Your task to perform on an android device: View the shopping cart on newegg. Image 0: 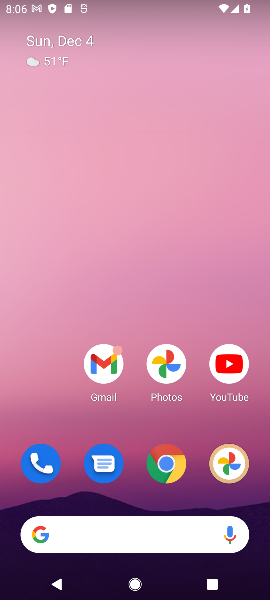
Step 0: click (133, 536)
Your task to perform on an android device: View the shopping cart on newegg. Image 1: 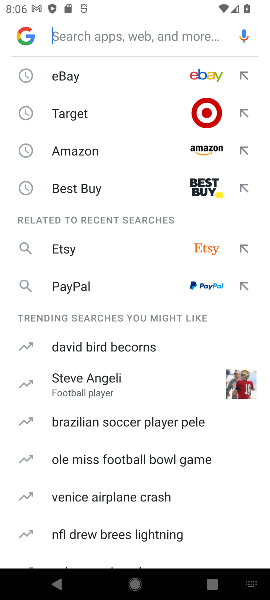
Step 1: type "newegg"
Your task to perform on an android device: View the shopping cart on newegg. Image 2: 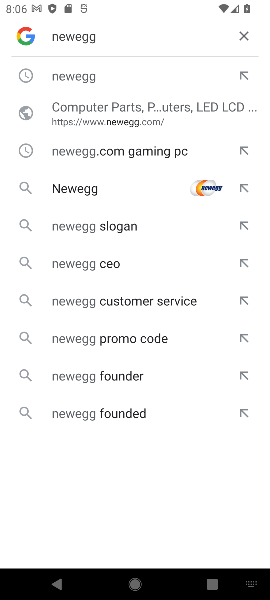
Step 2: click (157, 116)
Your task to perform on an android device: View the shopping cart on newegg. Image 3: 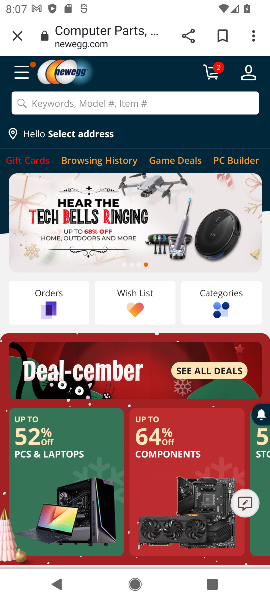
Step 3: task complete